Your task to perform on an android device: turn on bluetooth scan Image 0: 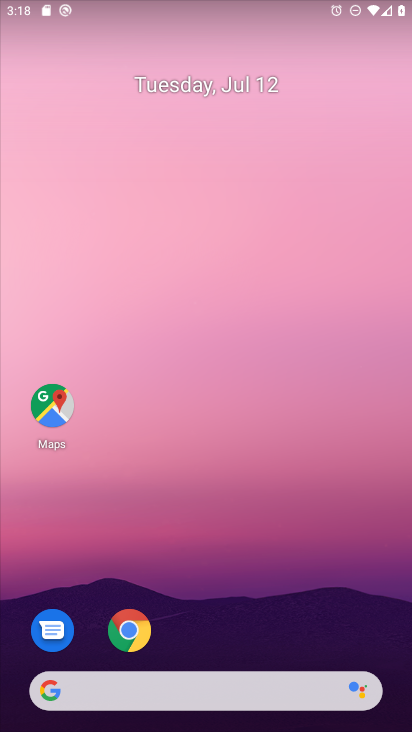
Step 0: drag from (223, 653) to (192, 289)
Your task to perform on an android device: turn on bluetooth scan Image 1: 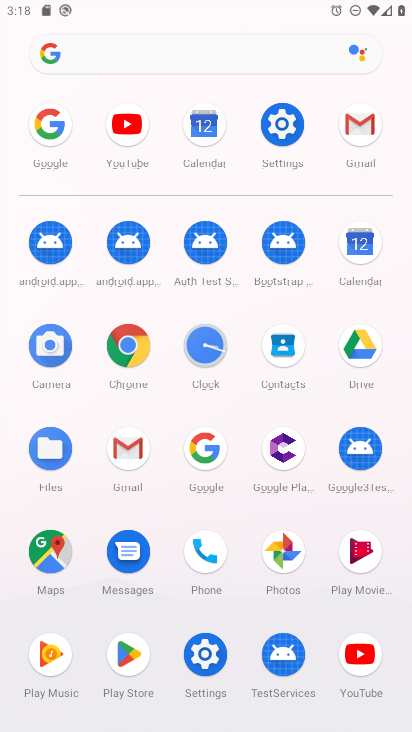
Step 1: click (291, 113)
Your task to perform on an android device: turn on bluetooth scan Image 2: 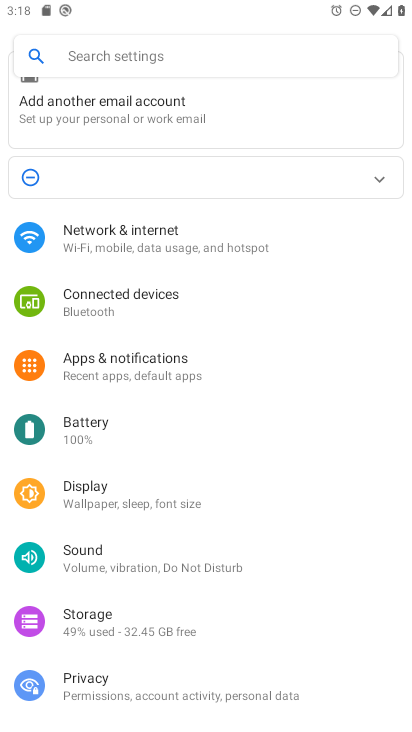
Step 2: drag from (185, 637) to (234, 327)
Your task to perform on an android device: turn on bluetooth scan Image 3: 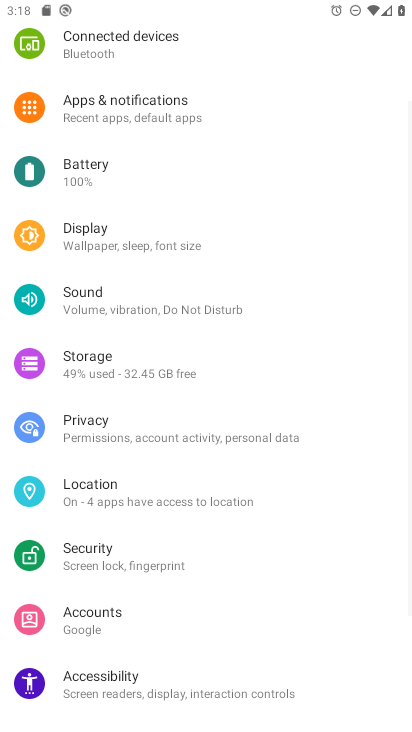
Step 3: click (186, 501)
Your task to perform on an android device: turn on bluetooth scan Image 4: 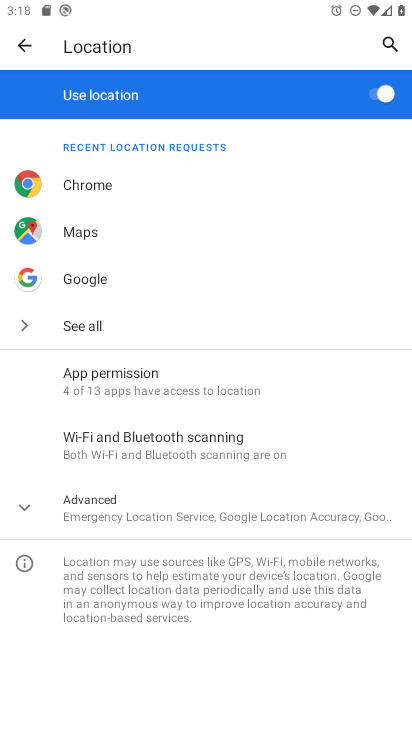
Step 4: click (215, 447)
Your task to perform on an android device: turn on bluetooth scan Image 5: 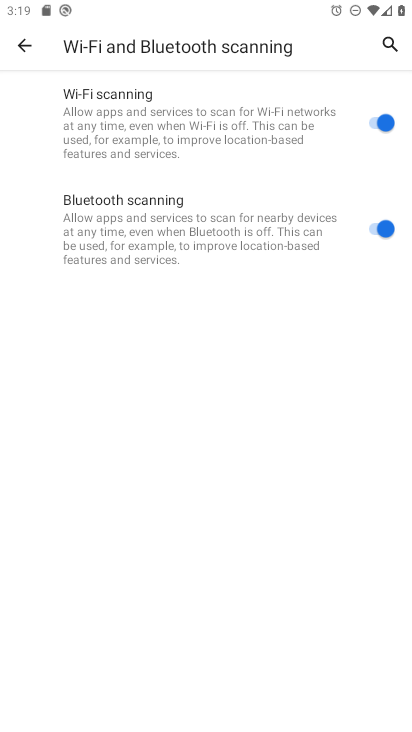
Step 5: task complete